Your task to perform on an android device: Open eBay Image 0: 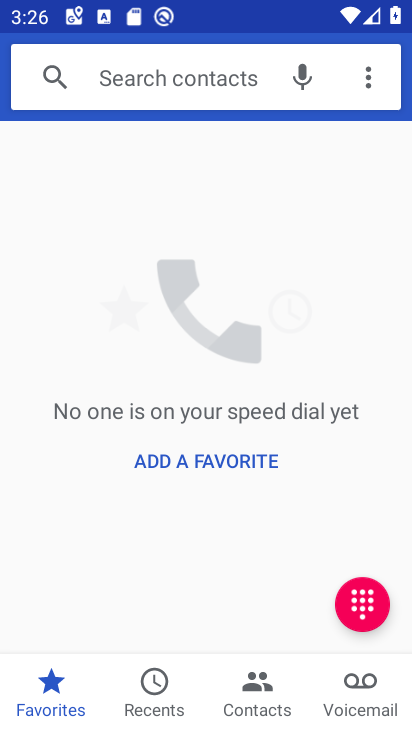
Step 0: press home button
Your task to perform on an android device: Open eBay Image 1: 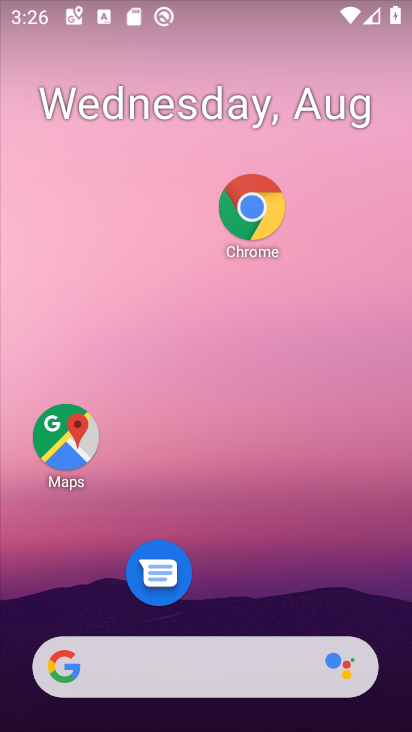
Step 1: click (243, 665)
Your task to perform on an android device: Open eBay Image 2: 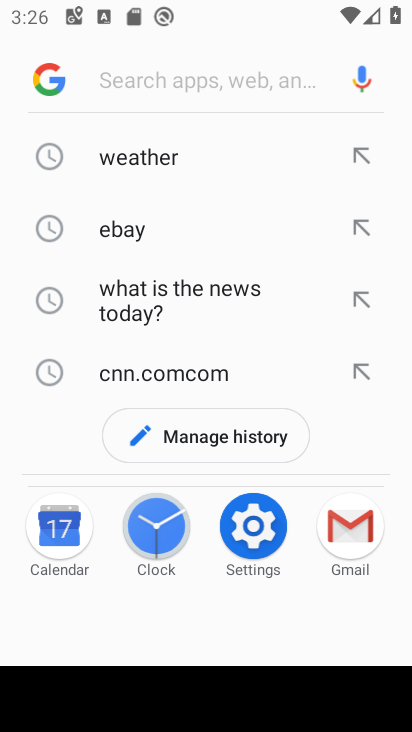
Step 2: click (210, 225)
Your task to perform on an android device: Open eBay Image 3: 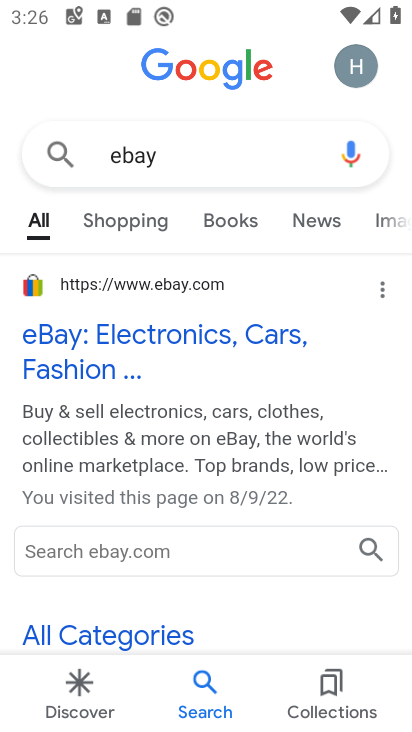
Step 3: click (71, 339)
Your task to perform on an android device: Open eBay Image 4: 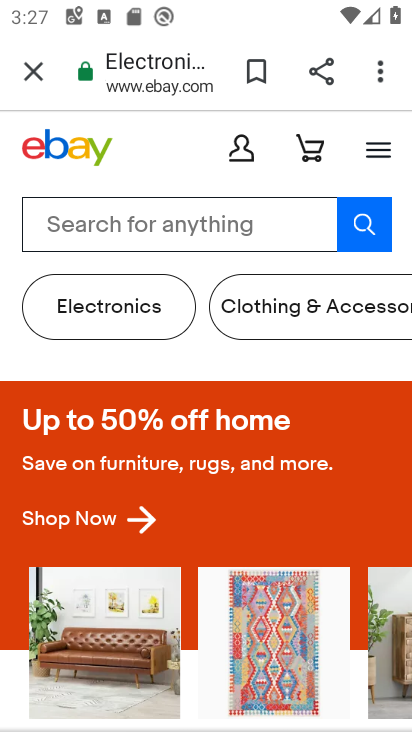
Step 4: task complete